Your task to perform on an android device: turn on bluetooth scan Image 0: 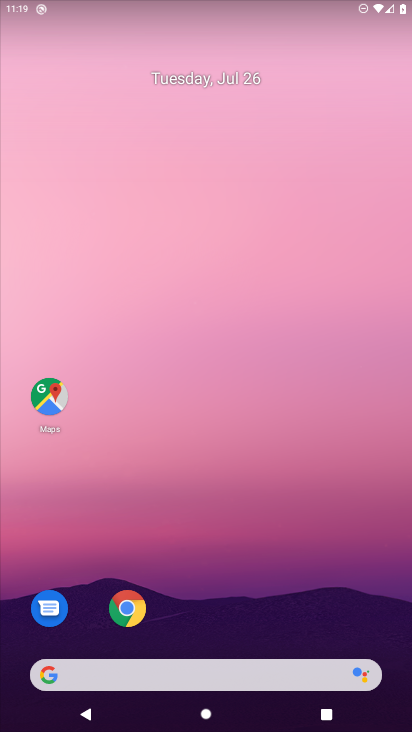
Step 0: drag from (285, 514) to (357, 149)
Your task to perform on an android device: turn on bluetooth scan Image 1: 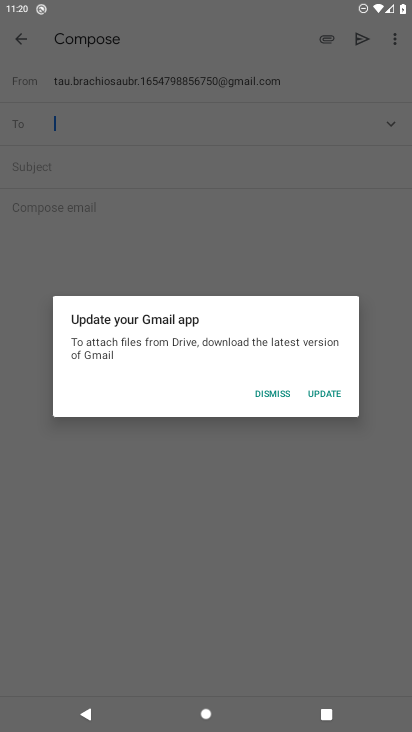
Step 1: click (268, 396)
Your task to perform on an android device: turn on bluetooth scan Image 2: 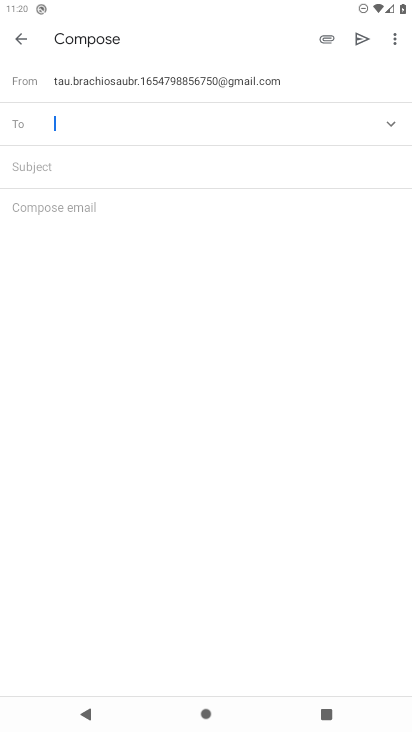
Step 2: drag from (227, 462) to (276, 359)
Your task to perform on an android device: turn on bluetooth scan Image 3: 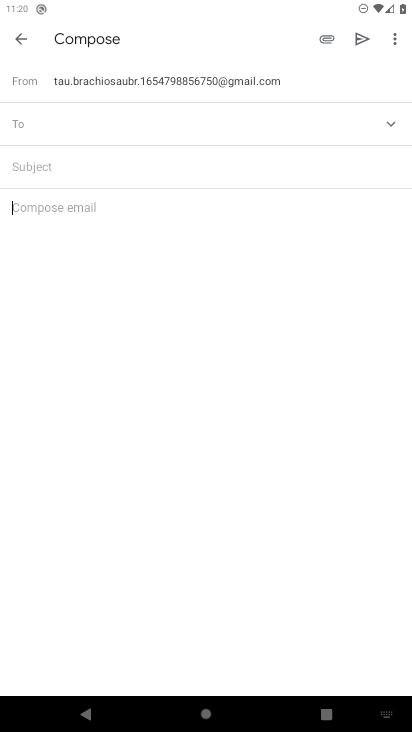
Step 3: press home button
Your task to perform on an android device: turn on bluetooth scan Image 4: 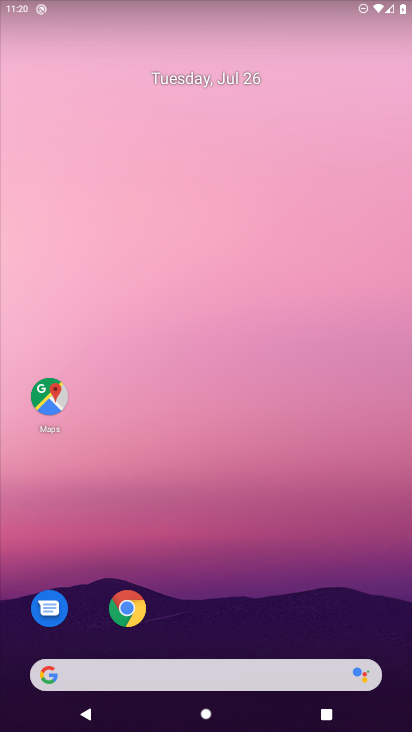
Step 4: drag from (207, 599) to (239, 296)
Your task to perform on an android device: turn on bluetooth scan Image 5: 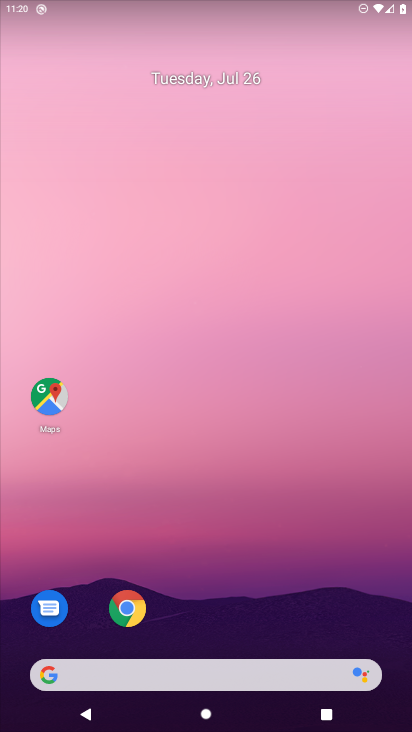
Step 5: drag from (135, 533) to (196, 80)
Your task to perform on an android device: turn on bluetooth scan Image 6: 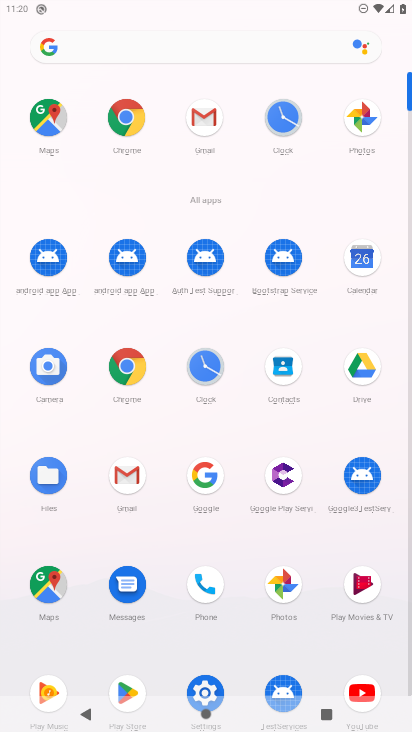
Step 6: click (201, 673)
Your task to perform on an android device: turn on bluetooth scan Image 7: 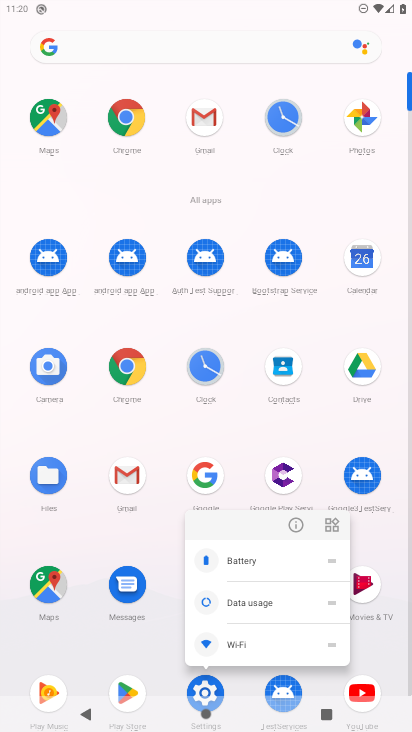
Step 7: click (290, 522)
Your task to perform on an android device: turn on bluetooth scan Image 8: 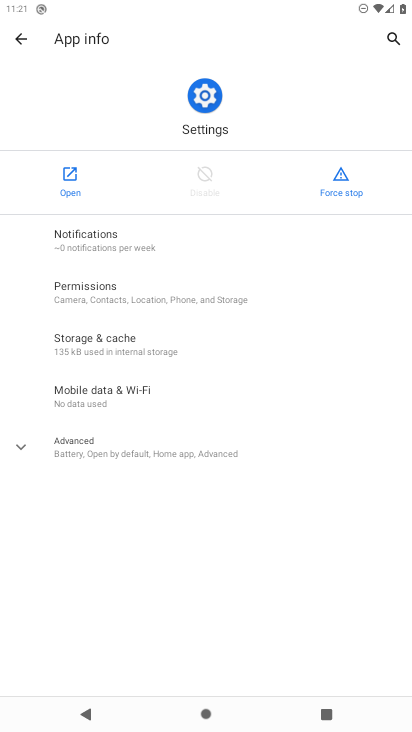
Step 8: click (59, 171)
Your task to perform on an android device: turn on bluetooth scan Image 9: 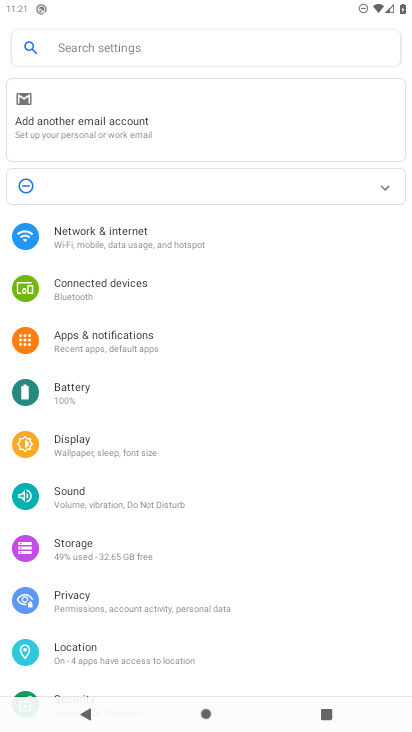
Step 9: drag from (92, 621) to (230, 203)
Your task to perform on an android device: turn on bluetooth scan Image 10: 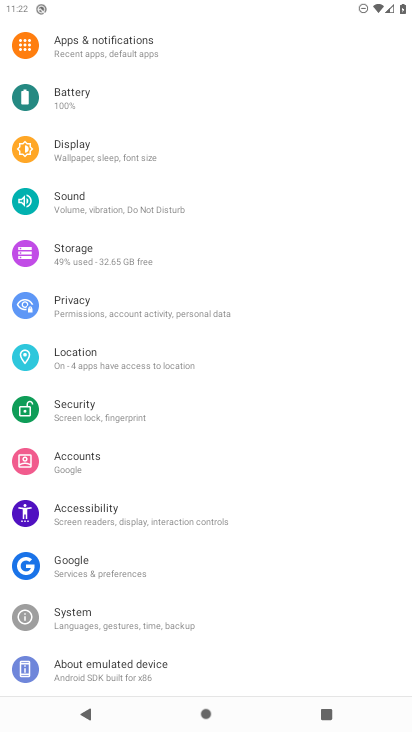
Step 10: click (79, 360)
Your task to perform on an android device: turn on bluetooth scan Image 11: 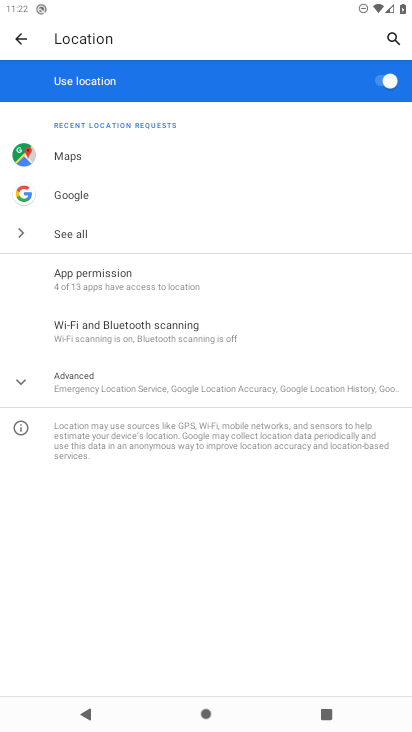
Step 11: drag from (201, 583) to (213, 312)
Your task to perform on an android device: turn on bluetooth scan Image 12: 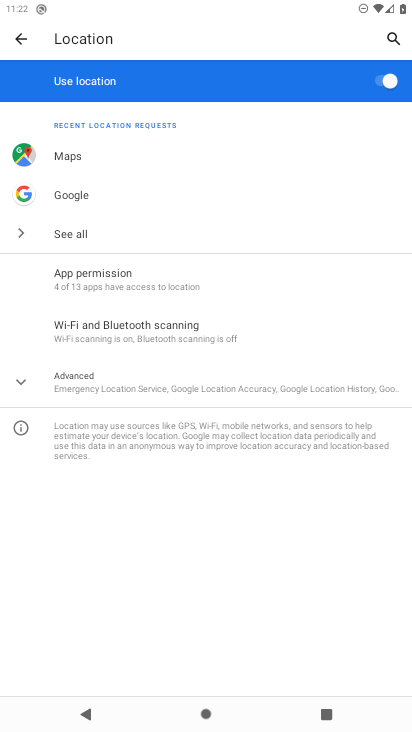
Step 12: click (91, 371)
Your task to perform on an android device: turn on bluetooth scan Image 13: 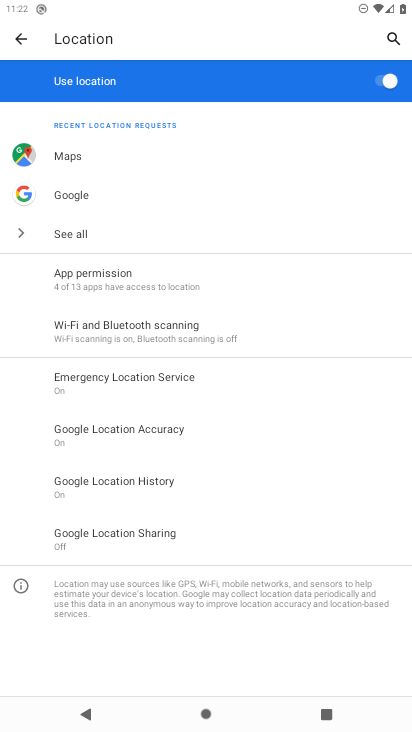
Step 13: click (156, 355)
Your task to perform on an android device: turn on bluetooth scan Image 14: 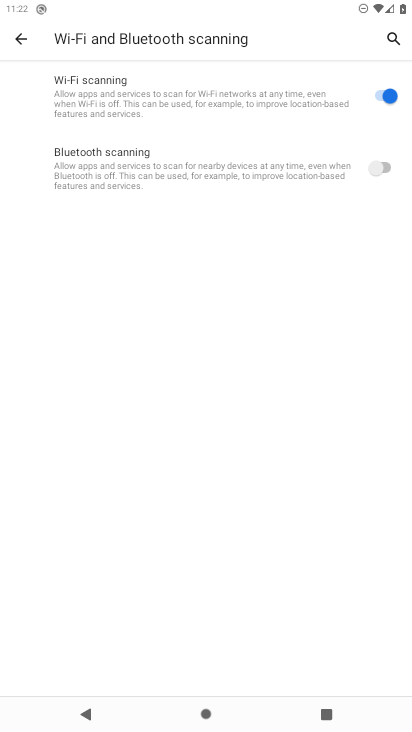
Step 14: click (272, 162)
Your task to perform on an android device: turn on bluetooth scan Image 15: 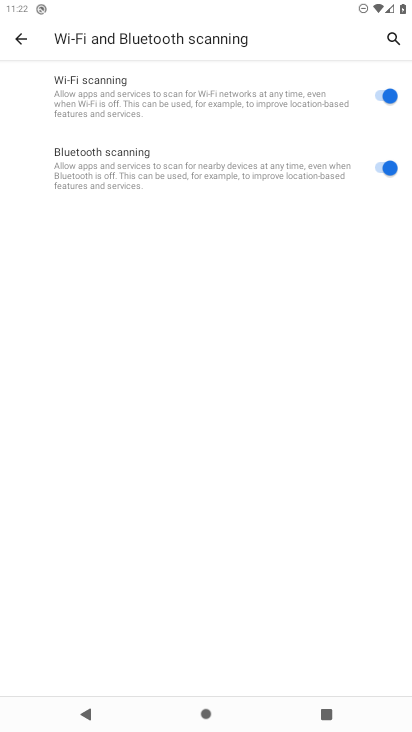
Step 15: task complete